Your task to perform on an android device: find snoozed emails in the gmail app Image 0: 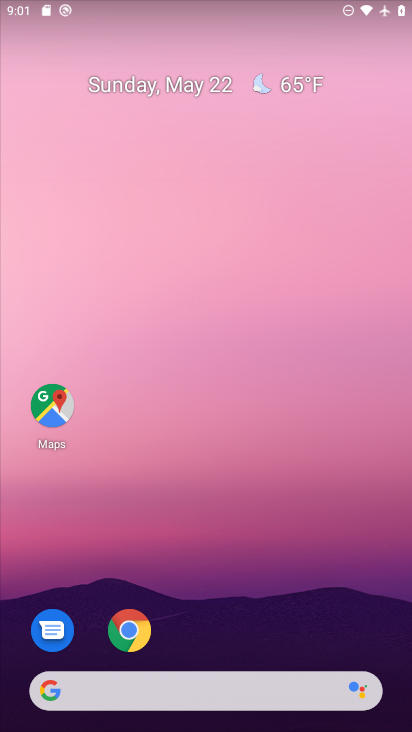
Step 0: drag from (255, 411) to (294, 274)
Your task to perform on an android device: find snoozed emails in the gmail app Image 1: 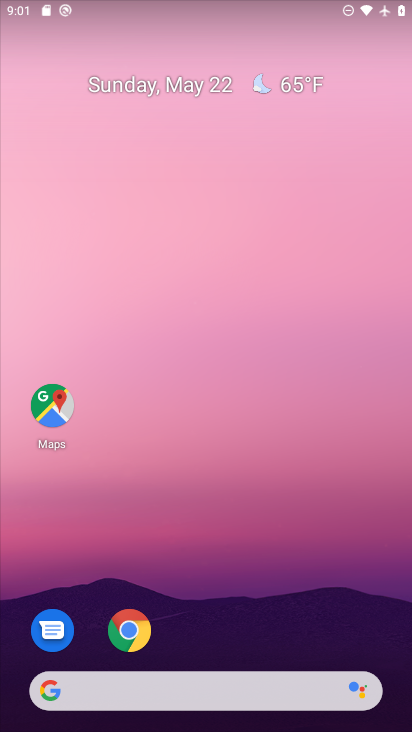
Step 1: drag from (177, 680) to (363, 72)
Your task to perform on an android device: find snoozed emails in the gmail app Image 2: 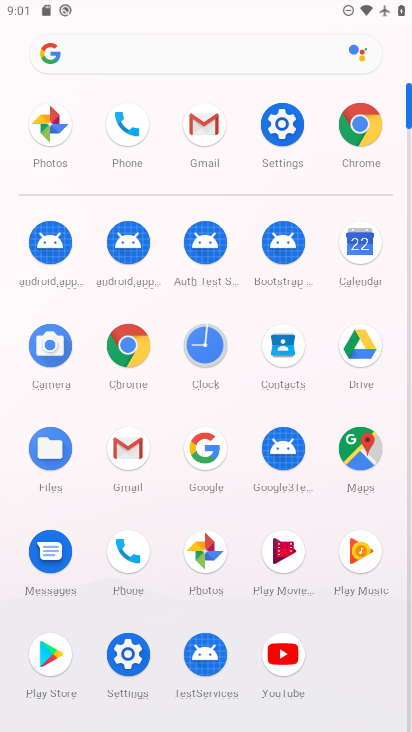
Step 2: click (201, 135)
Your task to perform on an android device: find snoozed emails in the gmail app Image 3: 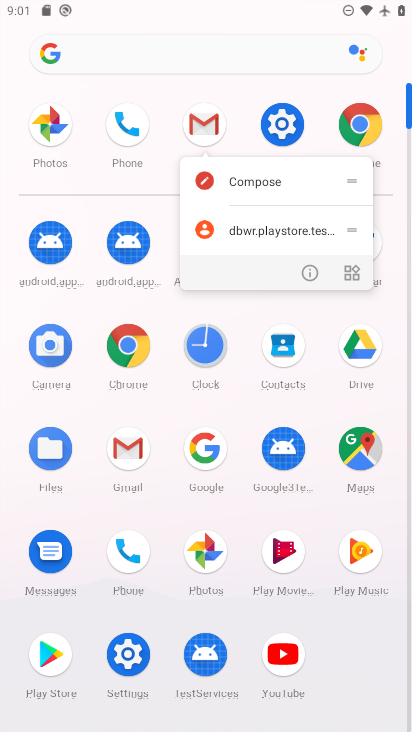
Step 3: click (185, 141)
Your task to perform on an android device: find snoozed emails in the gmail app Image 4: 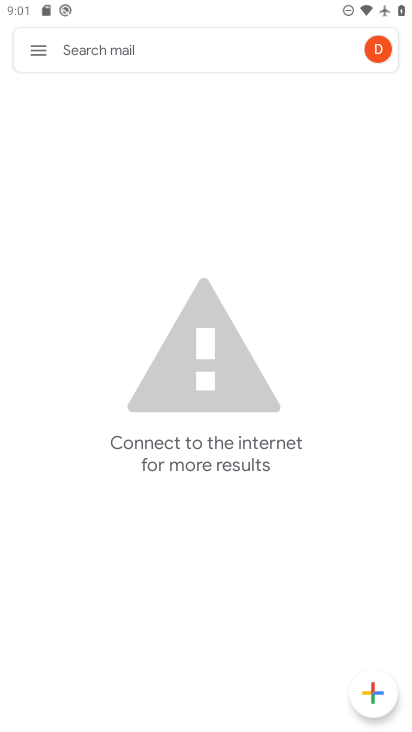
Step 4: click (39, 43)
Your task to perform on an android device: find snoozed emails in the gmail app Image 5: 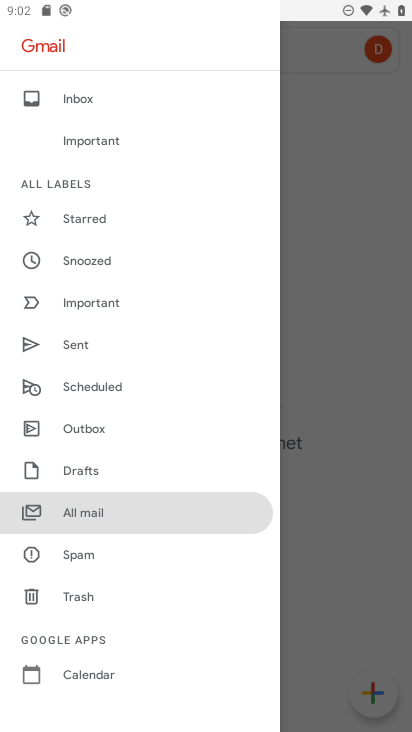
Step 5: click (77, 269)
Your task to perform on an android device: find snoozed emails in the gmail app Image 6: 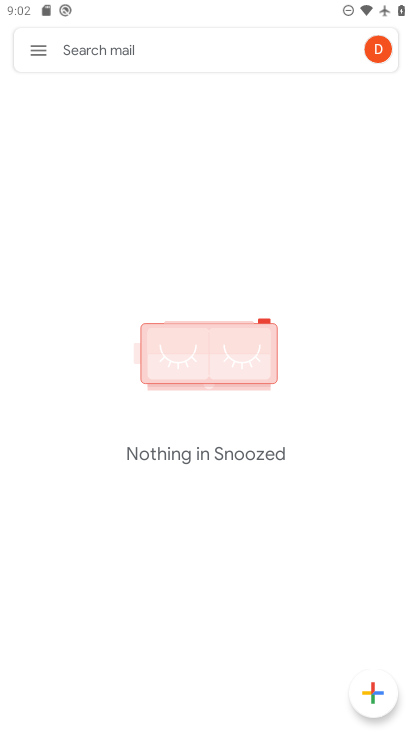
Step 6: task complete